Your task to perform on an android device: turn on showing notifications on the lock screen Image 0: 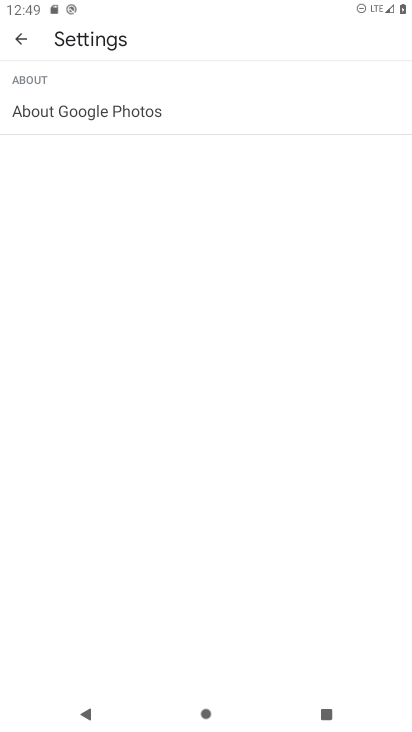
Step 0: press home button
Your task to perform on an android device: turn on showing notifications on the lock screen Image 1: 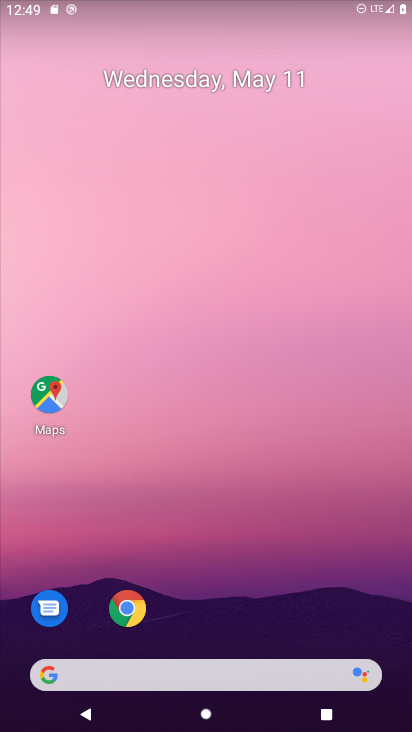
Step 1: drag from (266, 568) to (312, 48)
Your task to perform on an android device: turn on showing notifications on the lock screen Image 2: 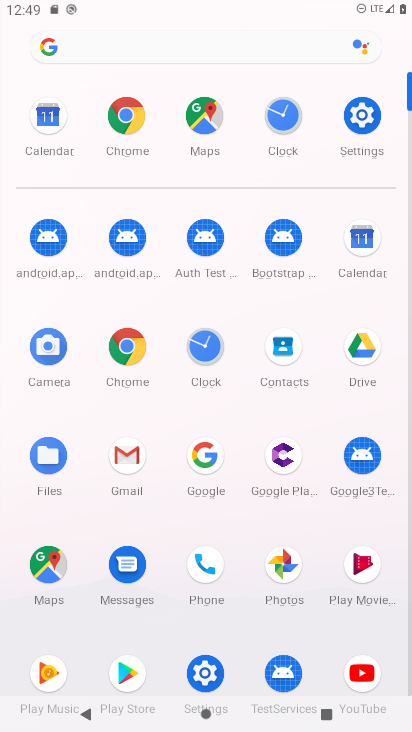
Step 2: click (353, 119)
Your task to perform on an android device: turn on showing notifications on the lock screen Image 3: 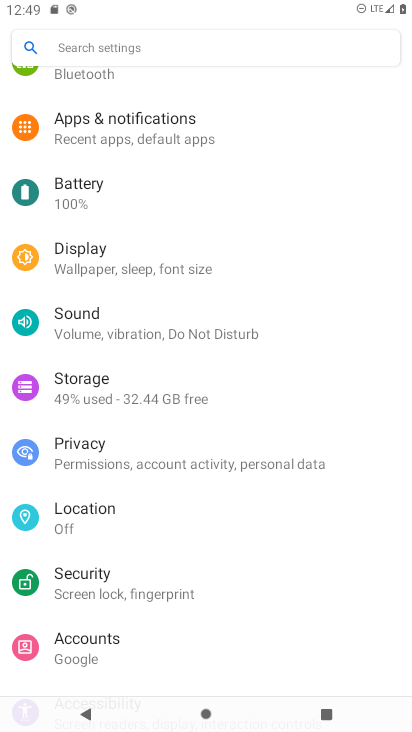
Step 3: click (207, 130)
Your task to perform on an android device: turn on showing notifications on the lock screen Image 4: 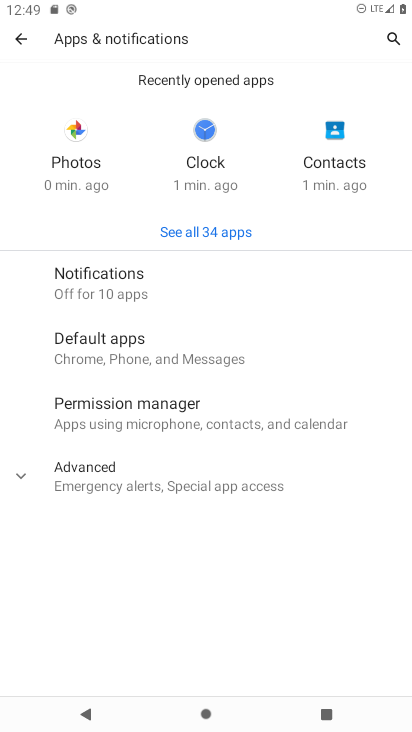
Step 4: click (155, 278)
Your task to perform on an android device: turn on showing notifications on the lock screen Image 5: 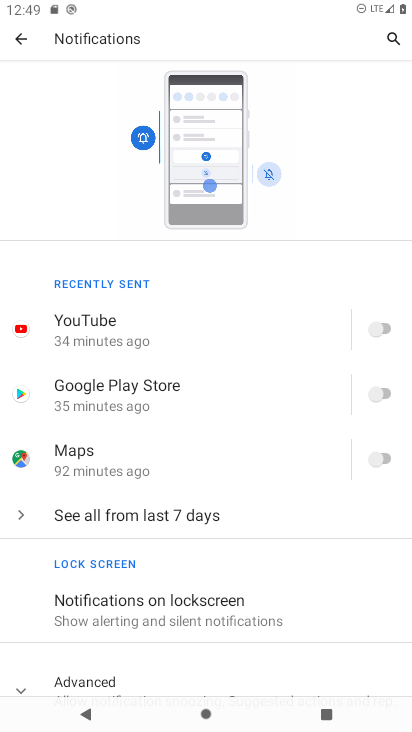
Step 5: task complete